Your task to perform on an android device: Clear all items from cart on ebay.com. Add "corsair k70" to the cart on ebay.com, then select checkout. Image 0: 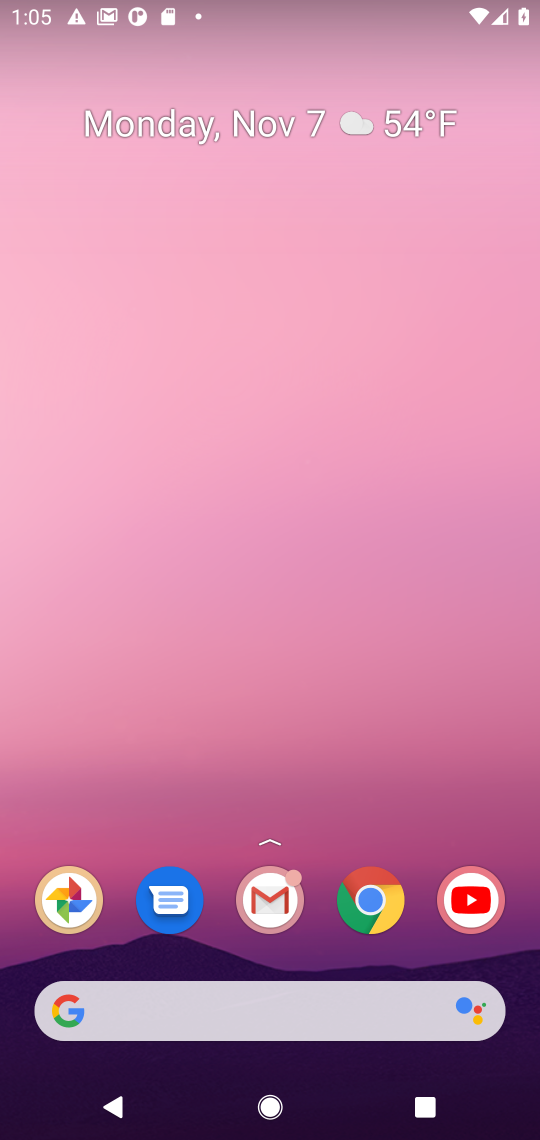
Step 0: click (233, 1038)
Your task to perform on an android device: Clear all items from cart on ebay.com. Add "corsair k70" to the cart on ebay.com, then select checkout. Image 1: 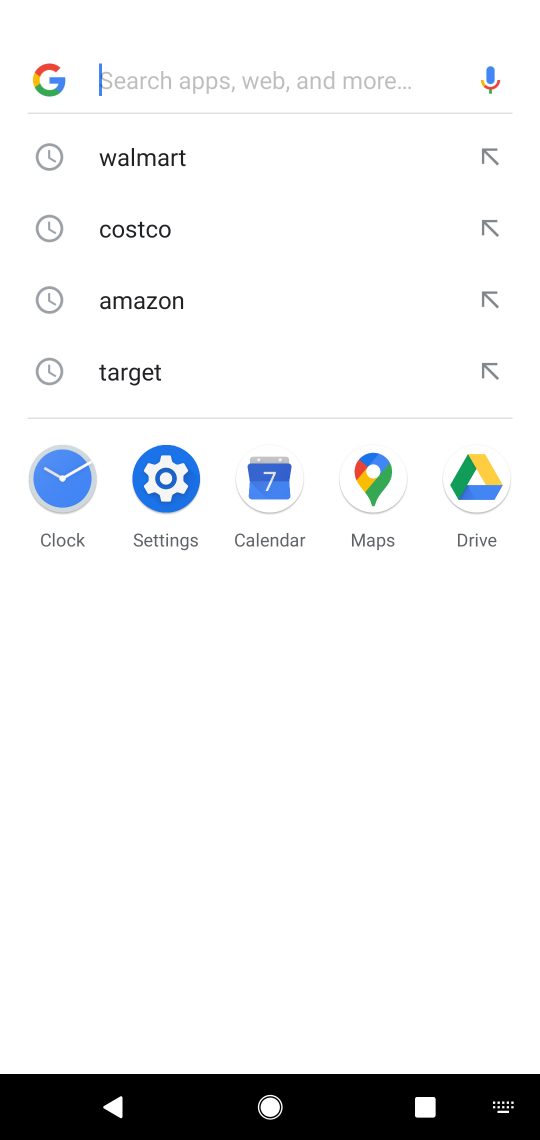
Step 1: type "ebay"
Your task to perform on an android device: Clear all items from cart on ebay.com. Add "corsair k70" to the cart on ebay.com, then select checkout. Image 2: 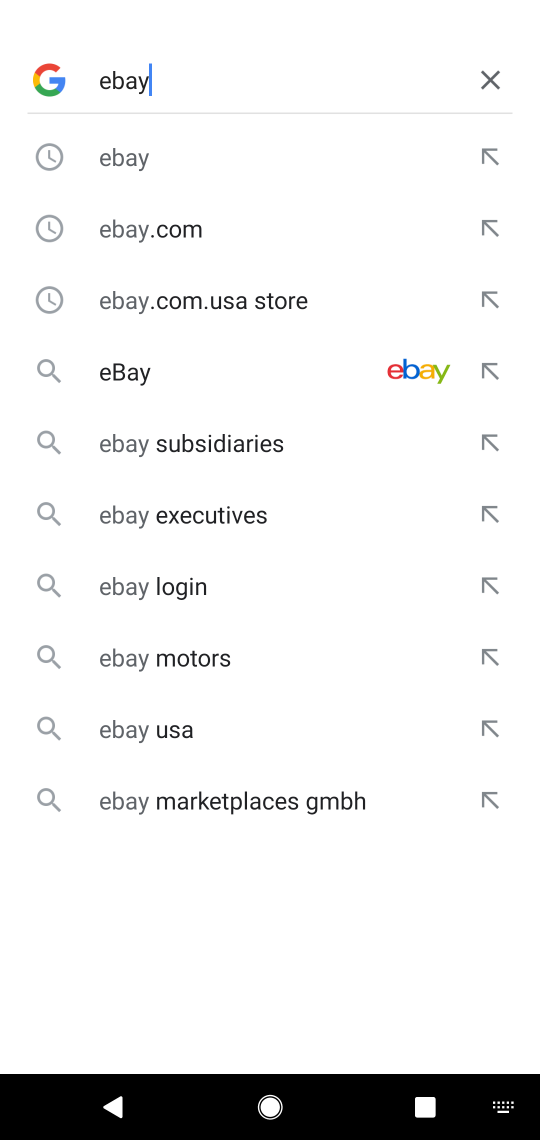
Step 2: click (189, 361)
Your task to perform on an android device: Clear all items from cart on ebay.com. Add "corsair k70" to the cart on ebay.com, then select checkout. Image 3: 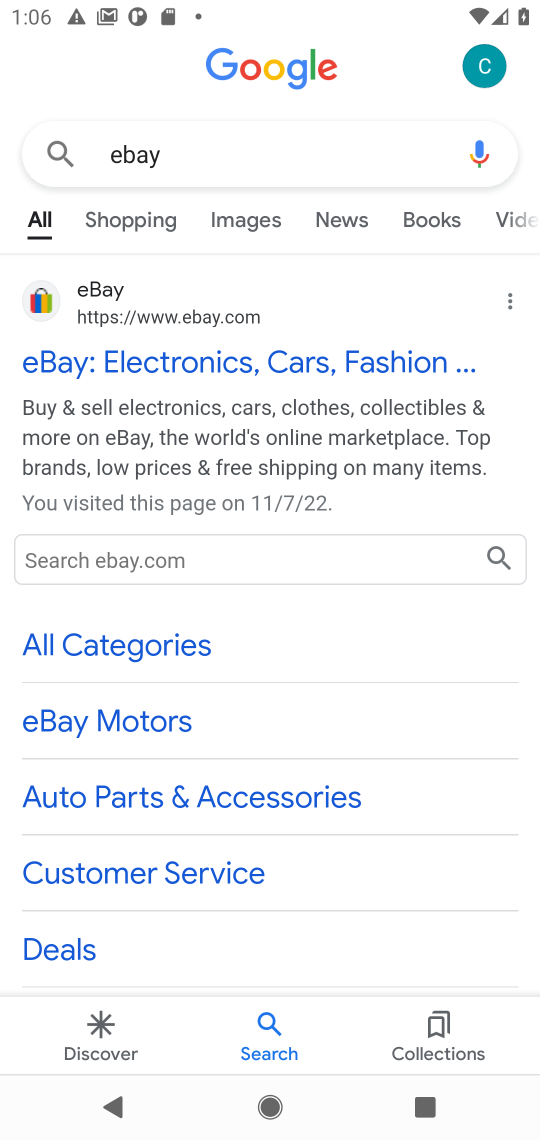
Step 3: click (124, 363)
Your task to perform on an android device: Clear all items from cart on ebay.com. Add "corsair k70" to the cart on ebay.com, then select checkout. Image 4: 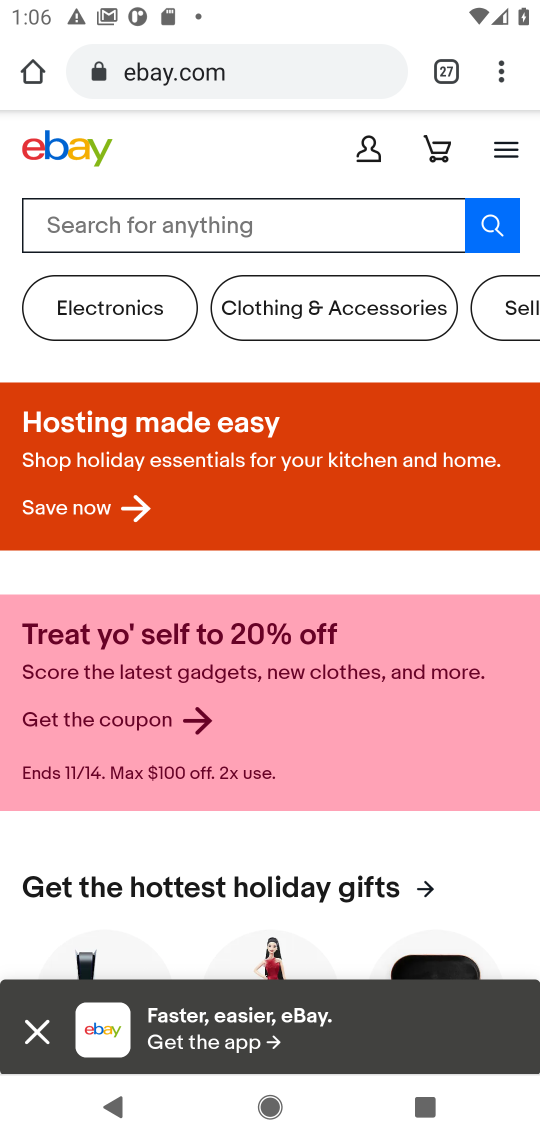
Step 4: click (127, 244)
Your task to perform on an android device: Clear all items from cart on ebay.com. Add "corsair k70" to the cart on ebay.com, then select checkout. Image 5: 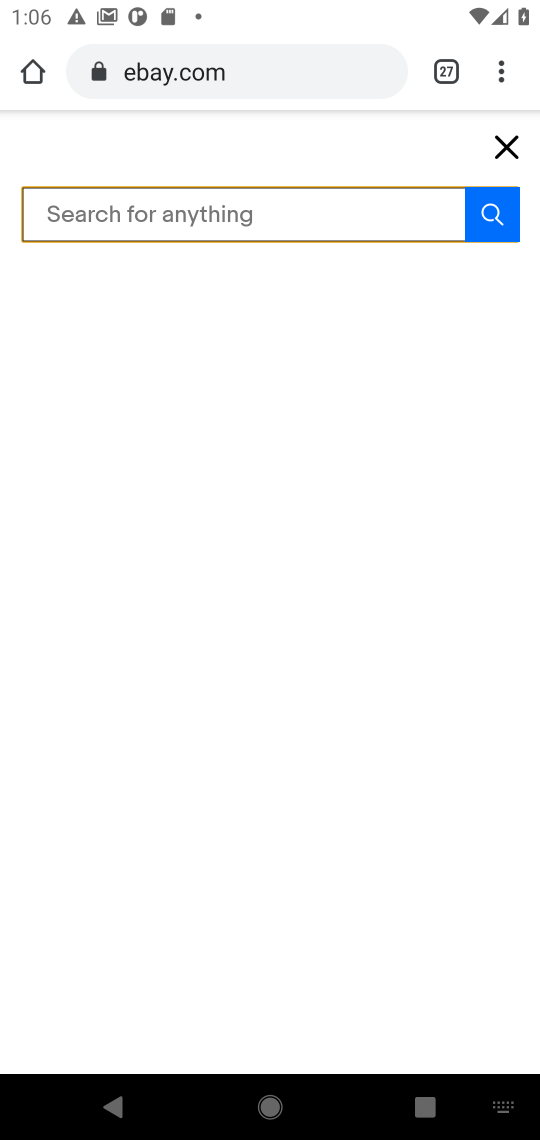
Step 5: click (166, 232)
Your task to perform on an android device: Clear all items from cart on ebay.com. Add "corsair k70" to the cart on ebay.com, then select checkout. Image 6: 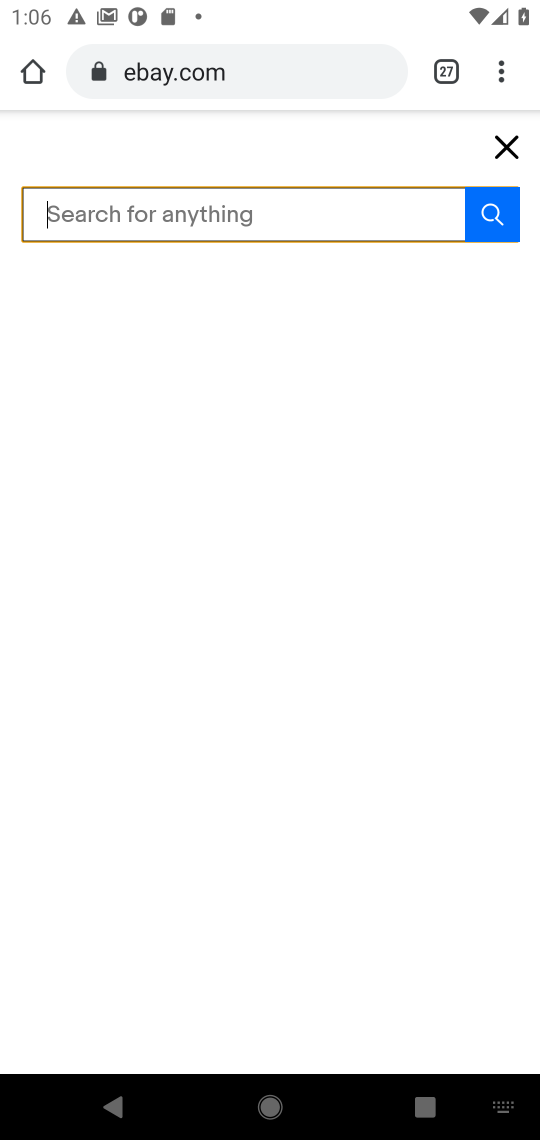
Step 6: type "corsair"
Your task to perform on an android device: Clear all items from cart on ebay.com. Add "corsair k70" to the cart on ebay.com, then select checkout. Image 7: 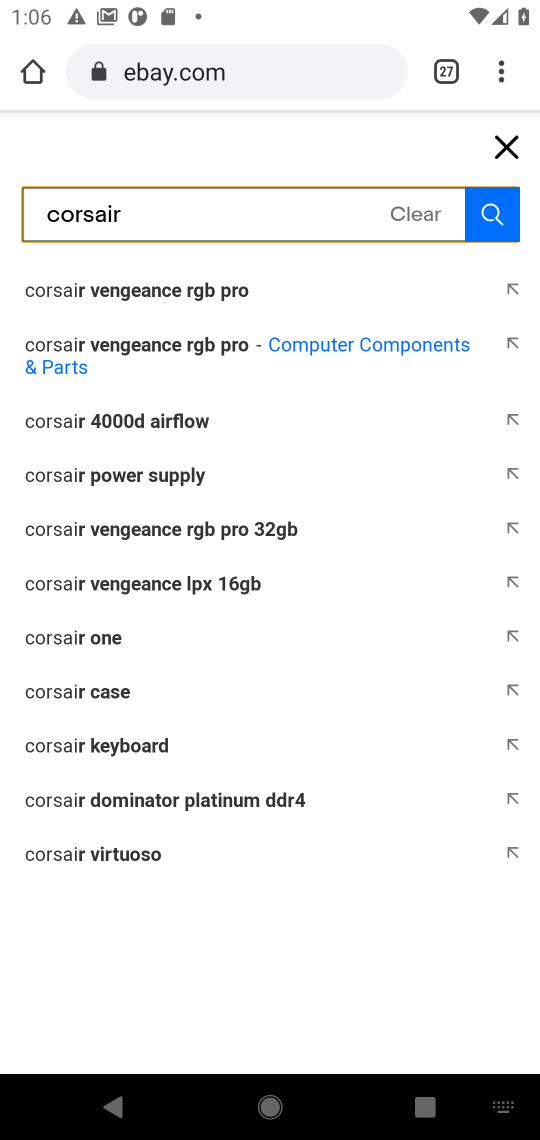
Step 7: click (497, 213)
Your task to perform on an android device: Clear all items from cart on ebay.com. Add "corsair k70" to the cart on ebay.com, then select checkout. Image 8: 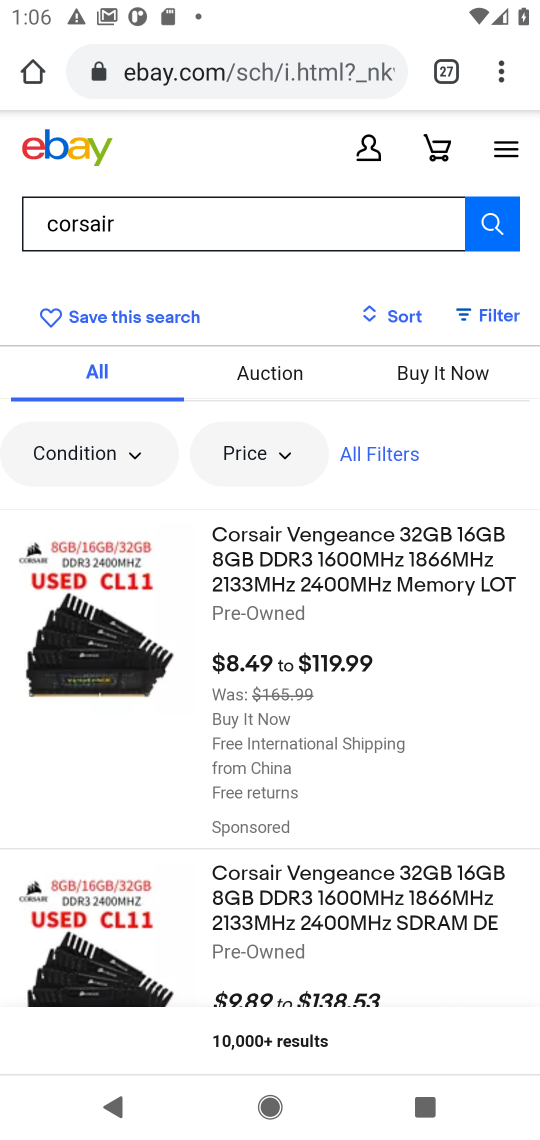
Step 8: click (323, 580)
Your task to perform on an android device: Clear all items from cart on ebay.com. Add "corsair k70" to the cart on ebay.com, then select checkout. Image 9: 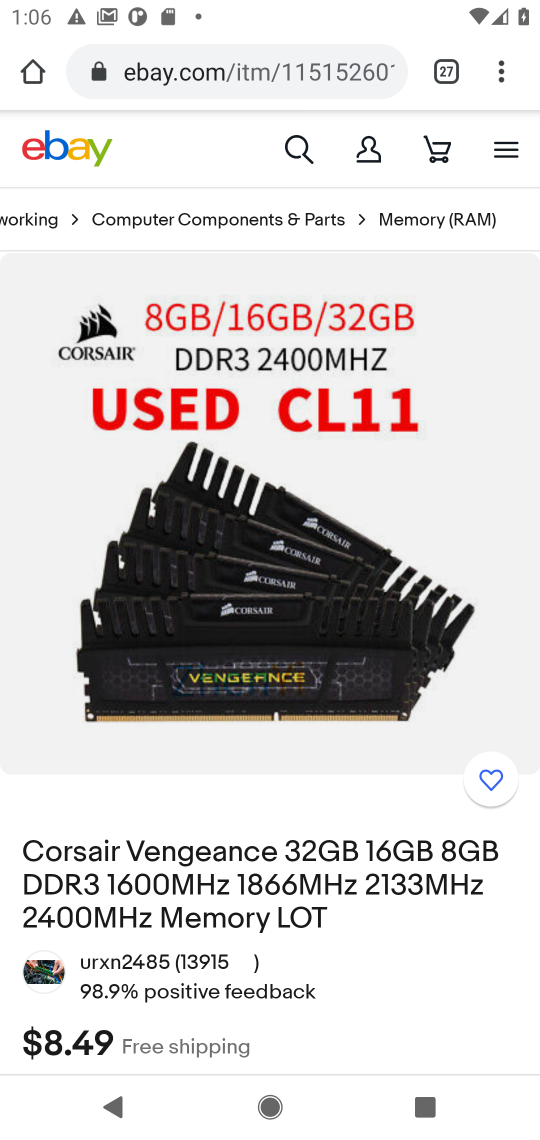
Step 9: task complete